Your task to perform on an android device: When is my next meeting? Image 0: 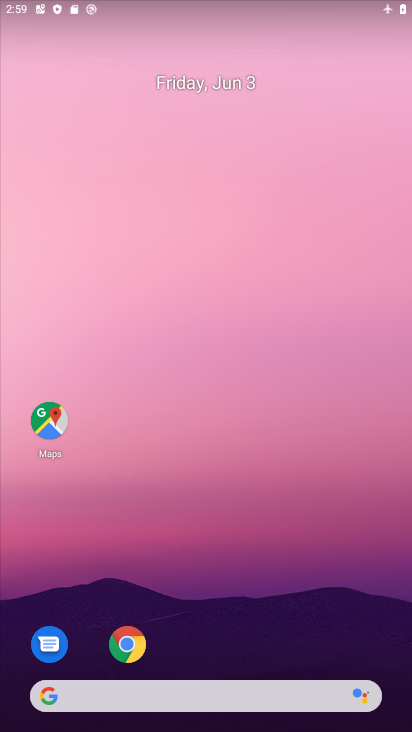
Step 0: drag from (232, 663) to (249, 270)
Your task to perform on an android device: When is my next meeting? Image 1: 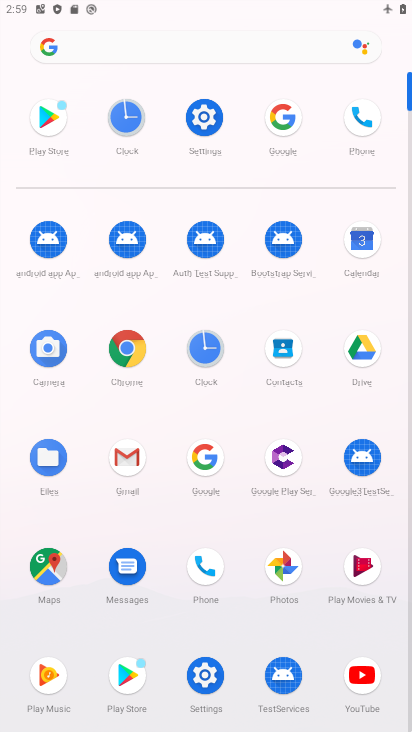
Step 1: click (339, 248)
Your task to perform on an android device: When is my next meeting? Image 2: 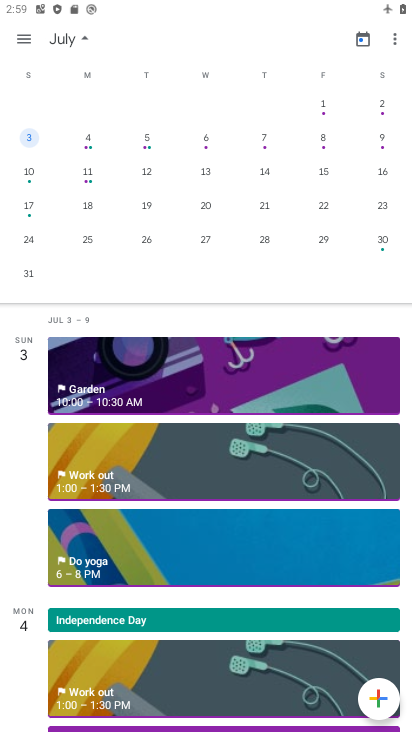
Step 2: drag from (144, 528) to (171, 348)
Your task to perform on an android device: When is my next meeting? Image 3: 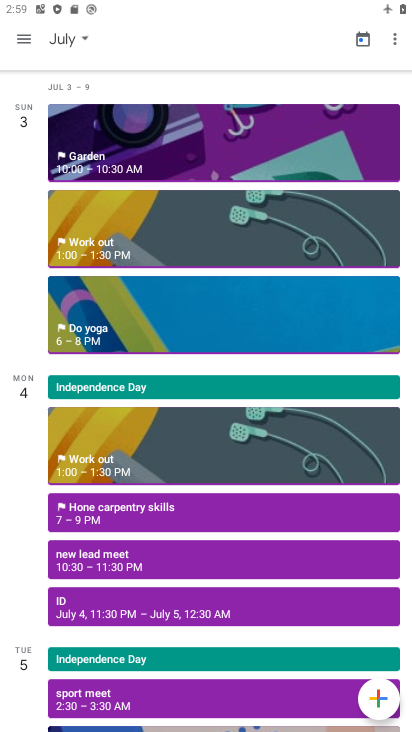
Step 3: drag from (185, 527) to (205, 394)
Your task to perform on an android device: When is my next meeting? Image 4: 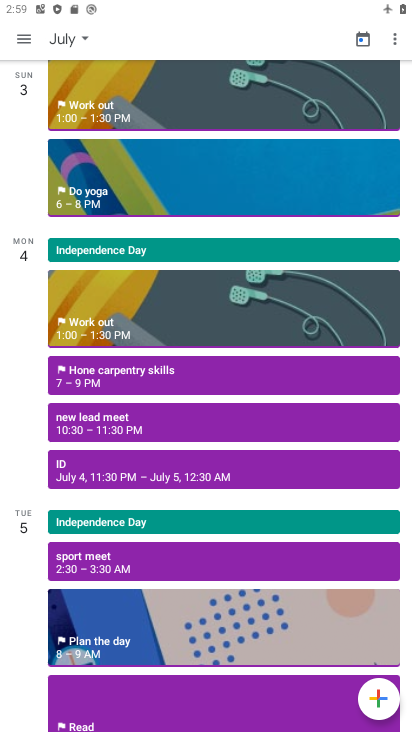
Step 4: drag from (121, 300) to (107, 600)
Your task to perform on an android device: When is my next meeting? Image 5: 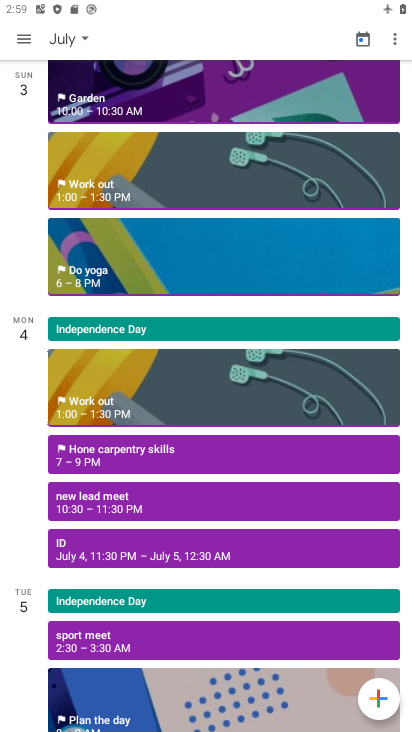
Step 5: drag from (172, 276) to (167, 579)
Your task to perform on an android device: When is my next meeting? Image 6: 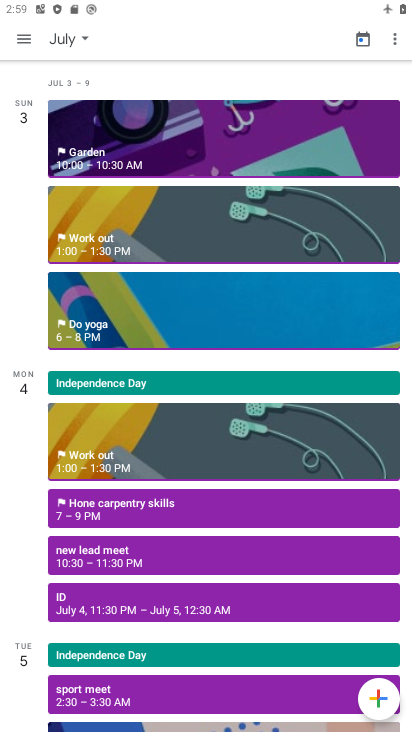
Step 6: click (85, 43)
Your task to perform on an android device: When is my next meeting? Image 7: 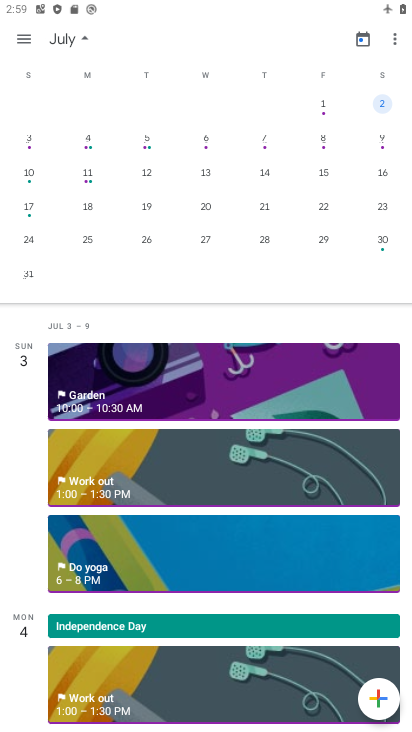
Step 7: task complete